Your task to perform on an android device: clear history in the chrome app Image 0: 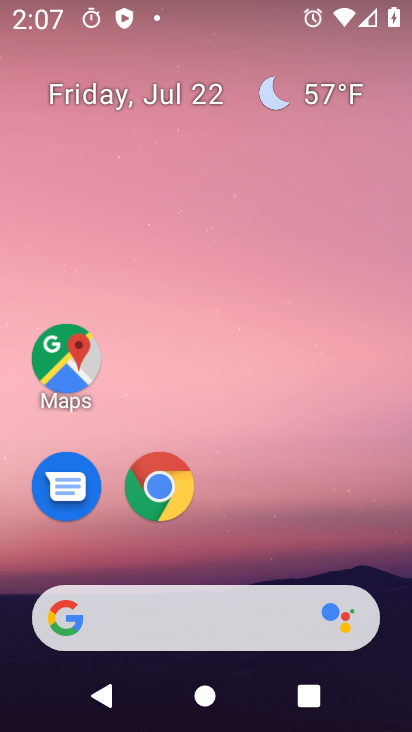
Step 0: press home button
Your task to perform on an android device: clear history in the chrome app Image 1: 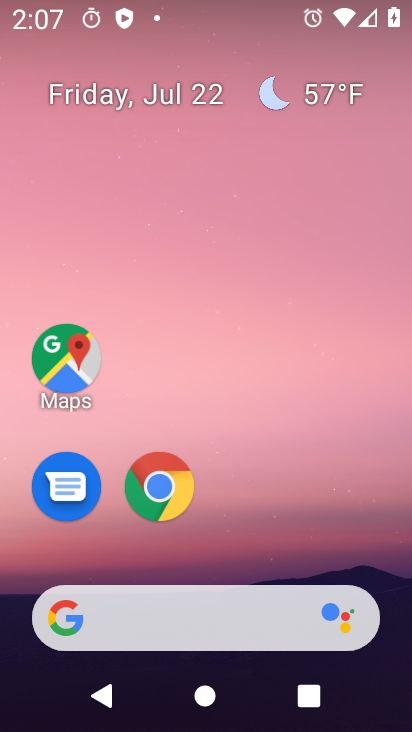
Step 1: drag from (404, 550) to (379, 159)
Your task to perform on an android device: clear history in the chrome app Image 2: 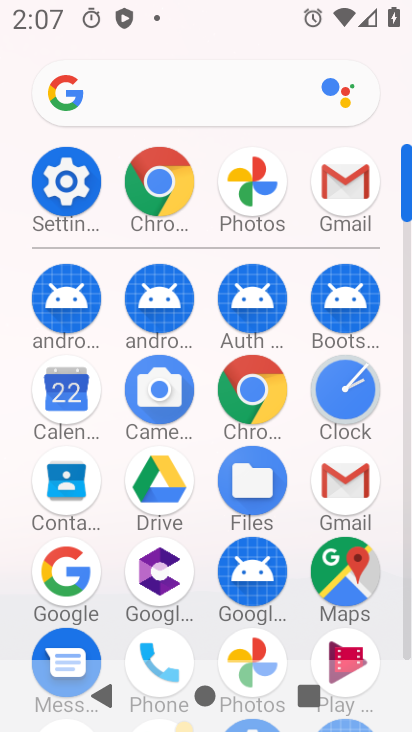
Step 2: click (260, 390)
Your task to perform on an android device: clear history in the chrome app Image 3: 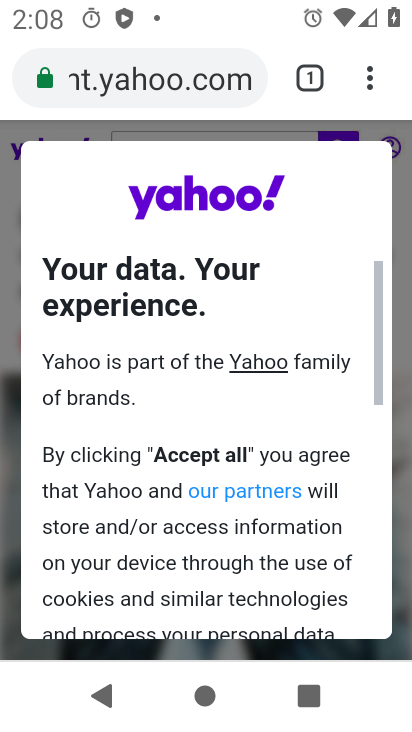
Step 3: click (366, 83)
Your task to perform on an android device: clear history in the chrome app Image 4: 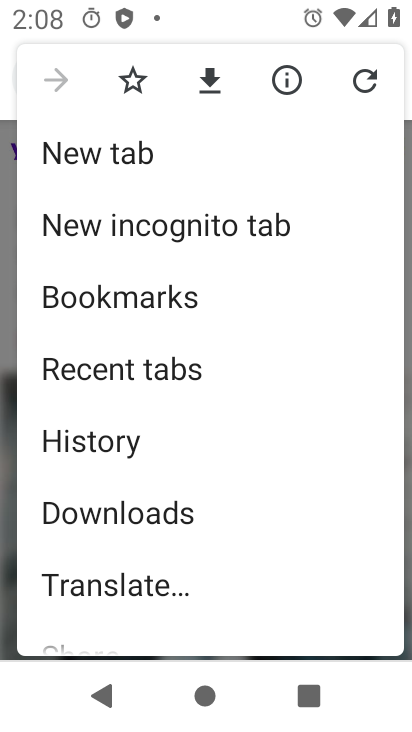
Step 4: click (158, 443)
Your task to perform on an android device: clear history in the chrome app Image 5: 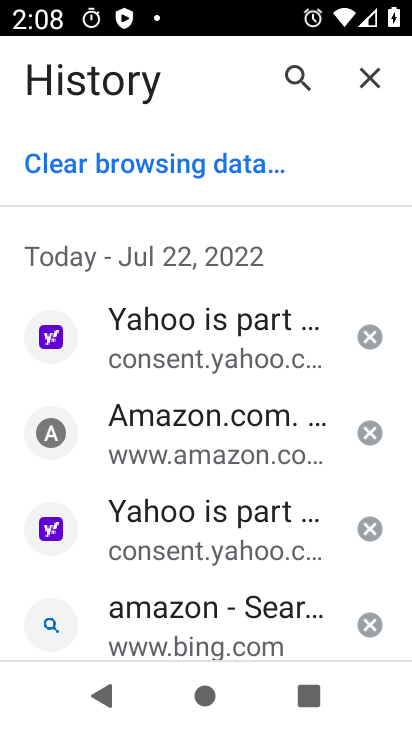
Step 5: click (239, 169)
Your task to perform on an android device: clear history in the chrome app Image 6: 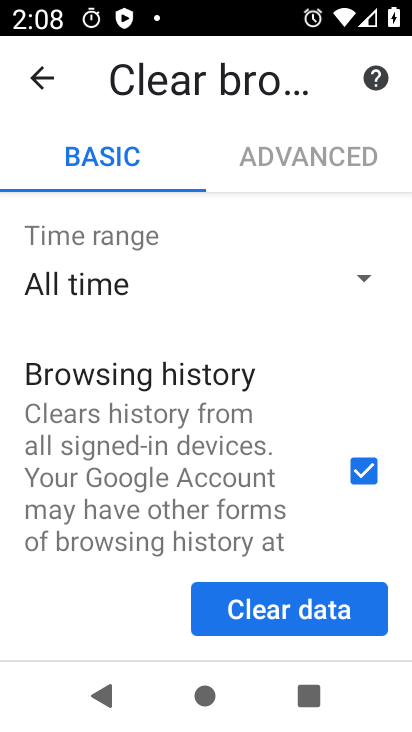
Step 6: click (320, 604)
Your task to perform on an android device: clear history in the chrome app Image 7: 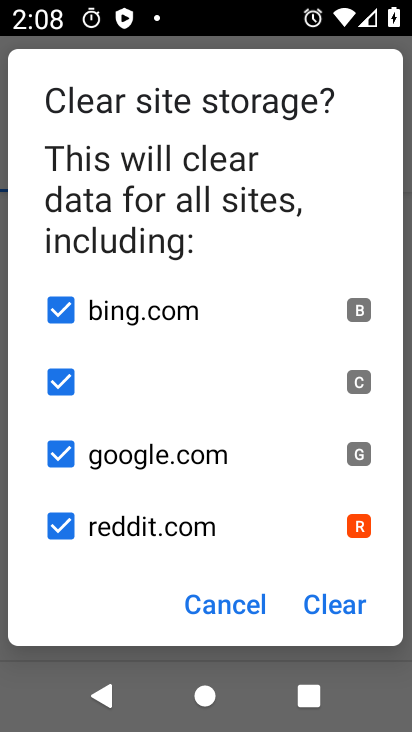
Step 7: click (343, 615)
Your task to perform on an android device: clear history in the chrome app Image 8: 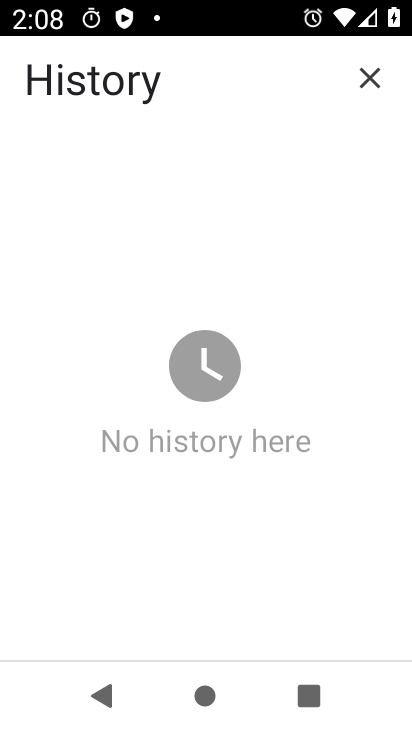
Step 8: task complete